Your task to perform on an android device: see tabs open on other devices in the chrome app Image 0: 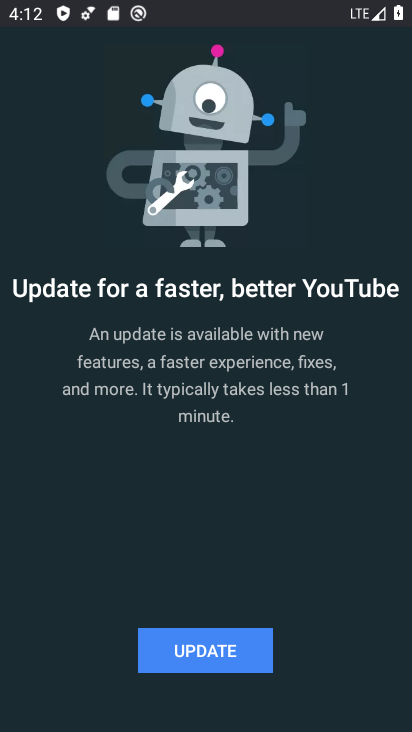
Step 0: press home button
Your task to perform on an android device: see tabs open on other devices in the chrome app Image 1: 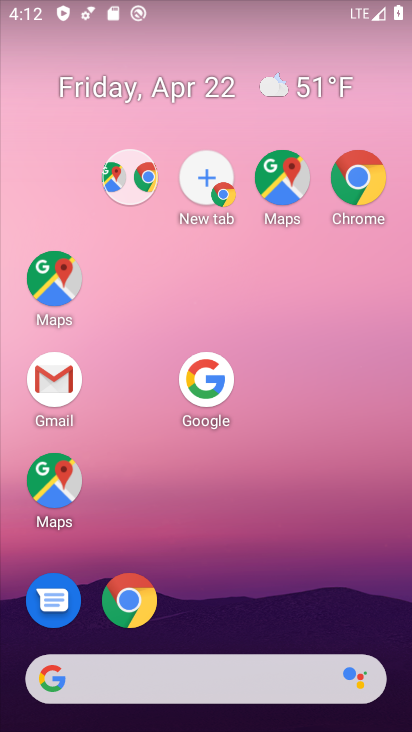
Step 1: drag from (315, 510) to (90, 0)
Your task to perform on an android device: see tabs open on other devices in the chrome app Image 2: 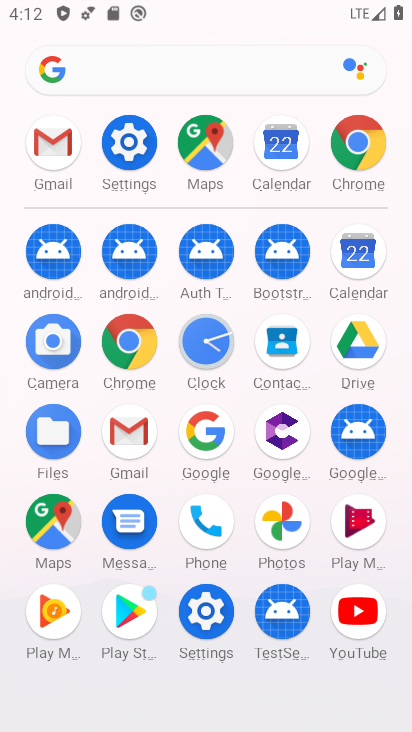
Step 2: click (364, 143)
Your task to perform on an android device: see tabs open on other devices in the chrome app Image 3: 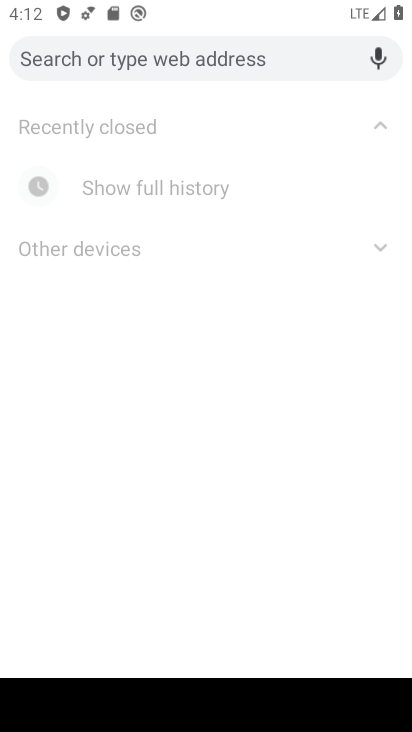
Step 3: drag from (200, 728) to (200, 406)
Your task to perform on an android device: see tabs open on other devices in the chrome app Image 4: 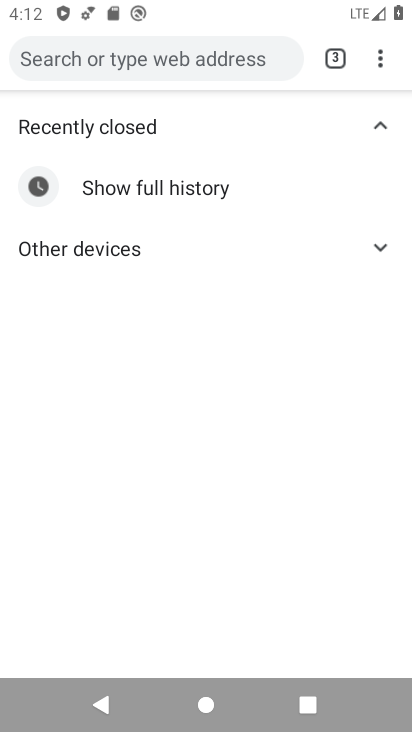
Step 4: press home button
Your task to perform on an android device: see tabs open on other devices in the chrome app Image 5: 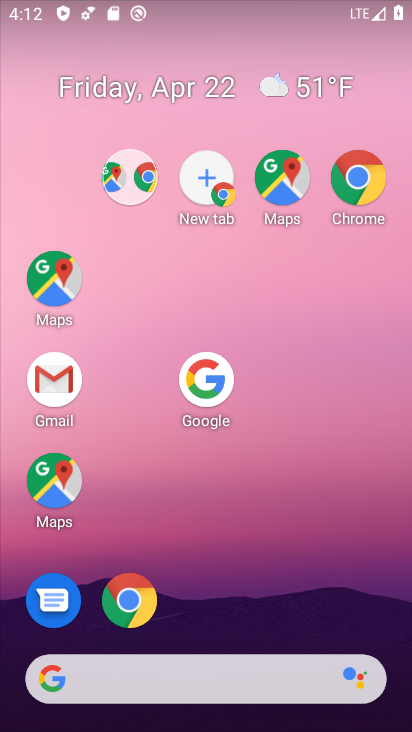
Step 5: drag from (325, 645) to (4, 9)
Your task to perform on an android device: see tabs open on other devices in the chrome app Image 6: 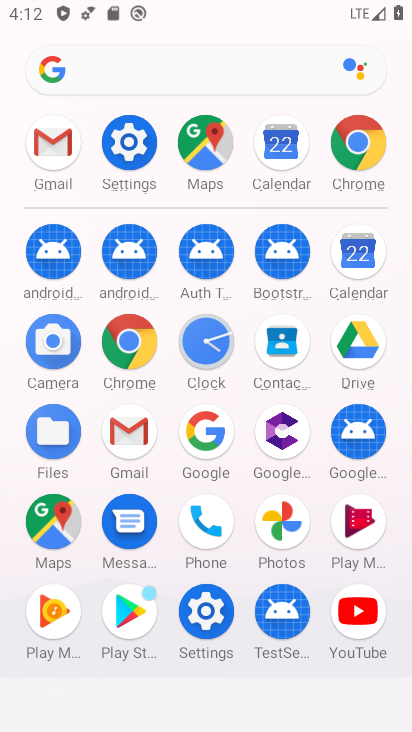
Step 6: click (367, 137)
Your task to perform on an android device: see tabs open on other devices in the chrome app Image 7: 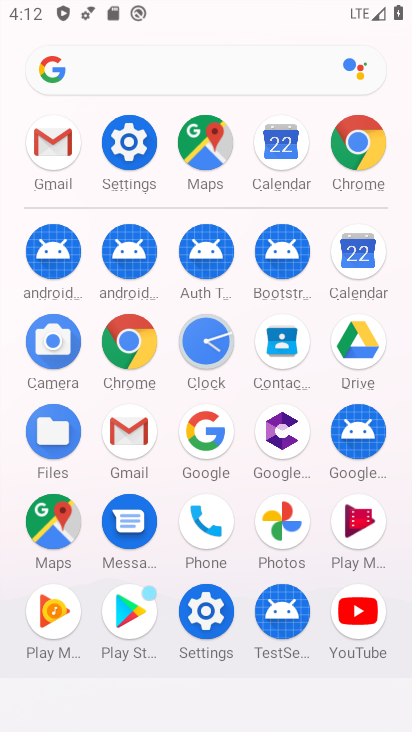
Step 7: click (369, 138)
Your task to perform on an android device: see tabs open on other devices in the chrome app Image 8: 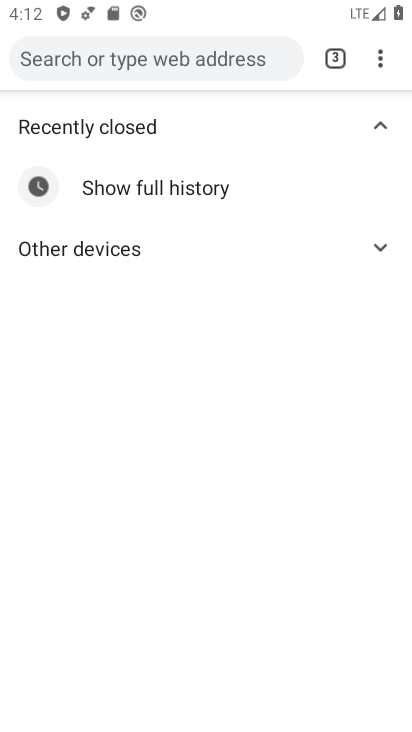
Step 8: drag from (381, 54) to (210, 274)
Your task to perform on an android device: see tabs open on other devices in the chrome app Image 9: 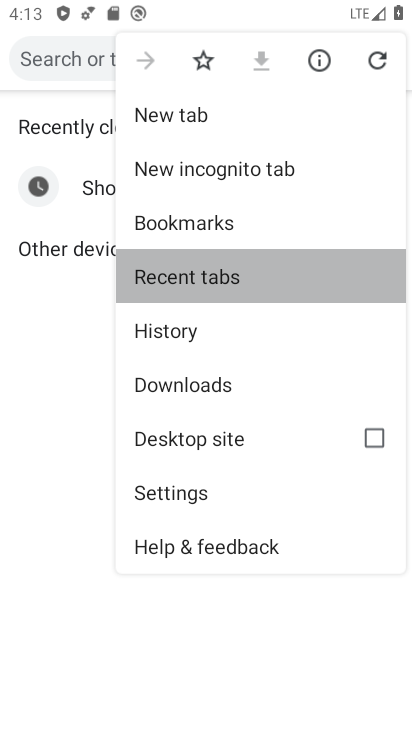
Step 9: click (210, 274)
Your task to perform on an android device: see tabs open on other devices in the chrome app Image 10: 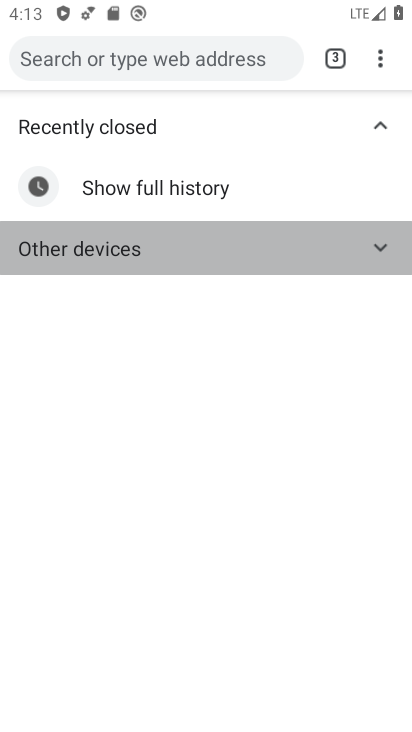
Step 10: click (210, 274)
Your task to perform on an android device: see tabs open on other devices in the chrome app Image 11: 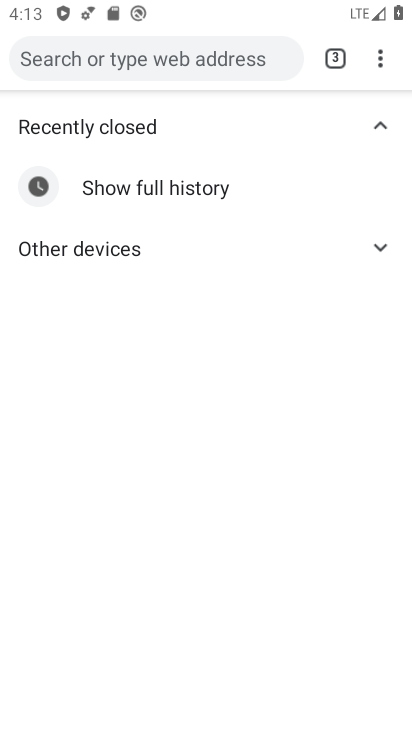
Step 11: task complete